Your task to perform on an android device: turn off notifications settings in the gmail app Image 0: 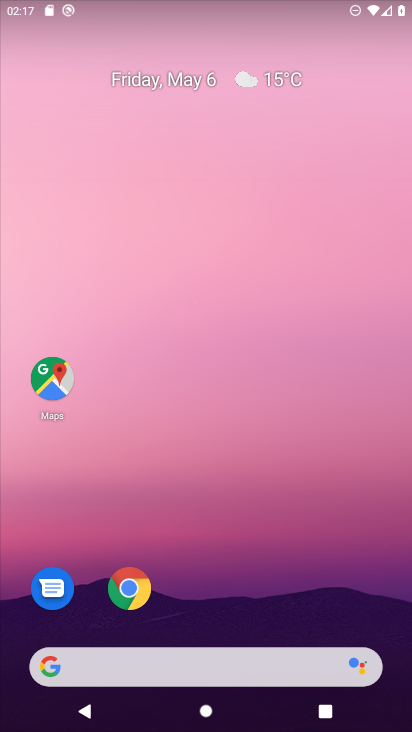
Step 0: drag from (208, 631) to (369, 24)
Your task to perform on an android device: turn off notifications settings in the gmail app Image 1: 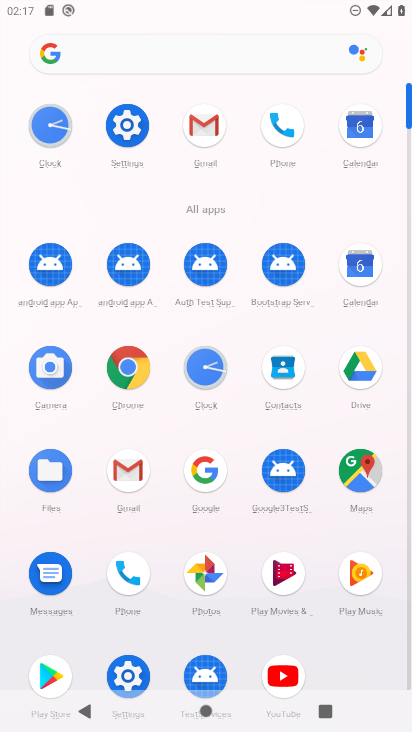
Step 1: click (131, 485)
Your task to perform on an android device: turn off notifications settings in the gmail app Image 2: 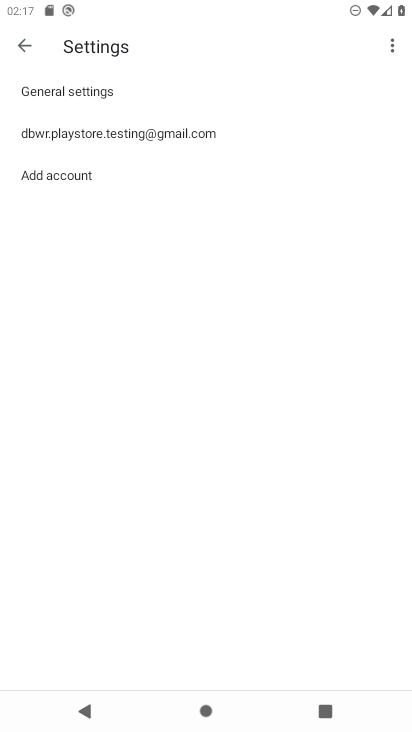
Step 2: click (17, 52)
Your task to perform on an android device: turn off notifications settings in the gmail app Image 3: 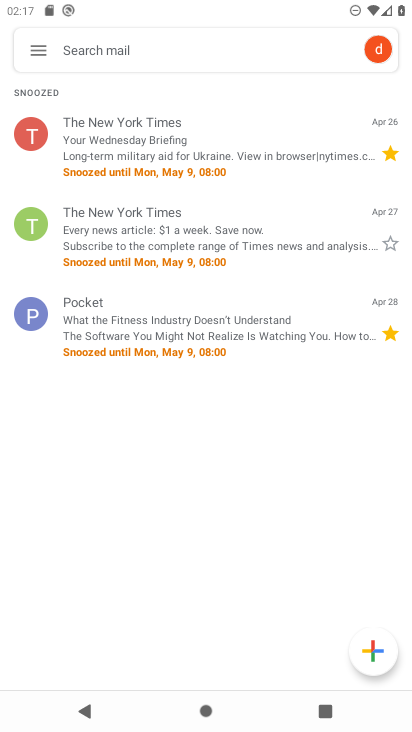
Step 3: click (37, 52)
Your task to perform on an android device: turn off notifications settings in the gmail app Image 4: 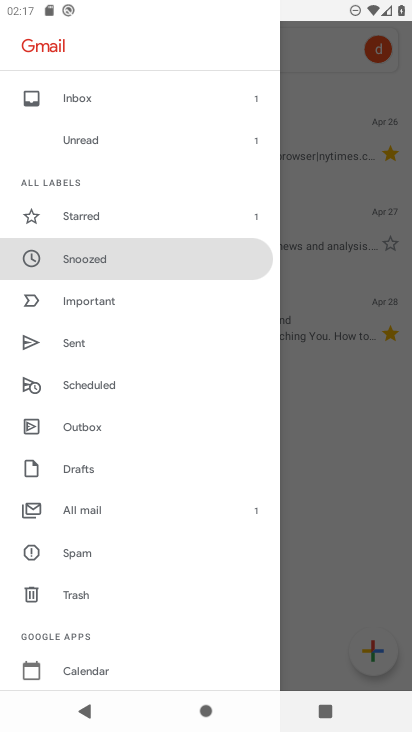
Step 4: drag from (123, 582) to (42, 270)
Your task to perform on an android device: turn off notifications settings in the gmail app Image 5: 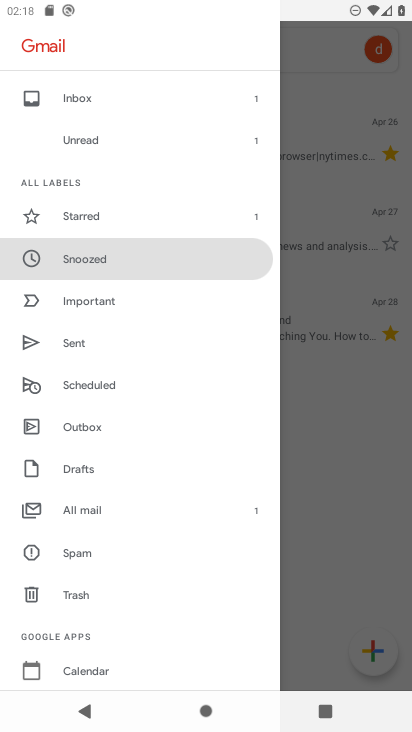
Step 5: drag from (124, 514) to (51, 8)
Your task to perform on an android device: turn off notifications settings in the gmail app Image 6: 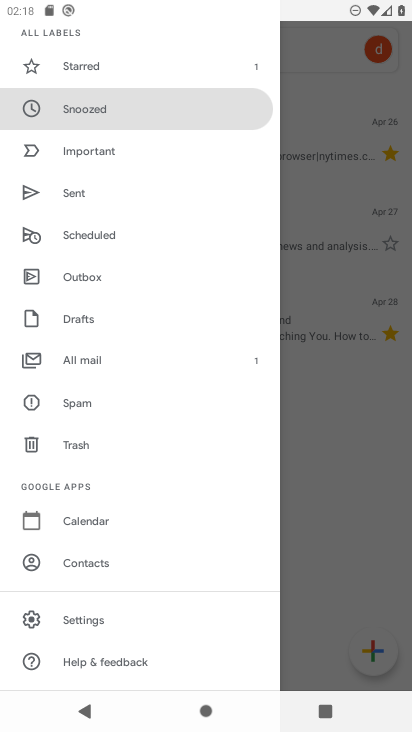
Step 6: click (72, 623)
Your task to perform on an android device: turn off notifications settings in the gmail app Image 7: 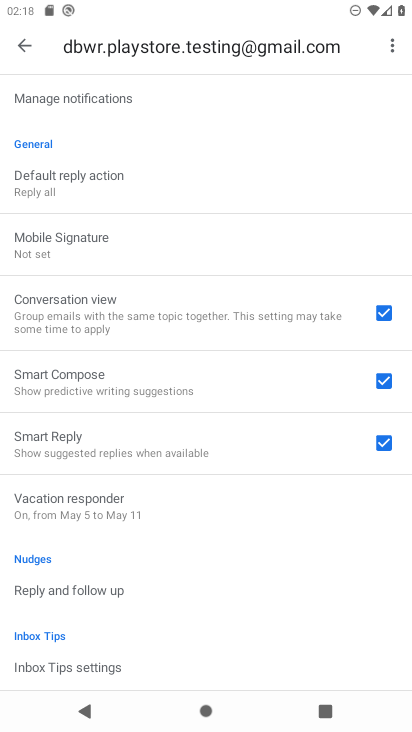
Step 7: click (21, 39)
Your task to perform on an android device: turn off notifications settings in the gmail app Image 8: 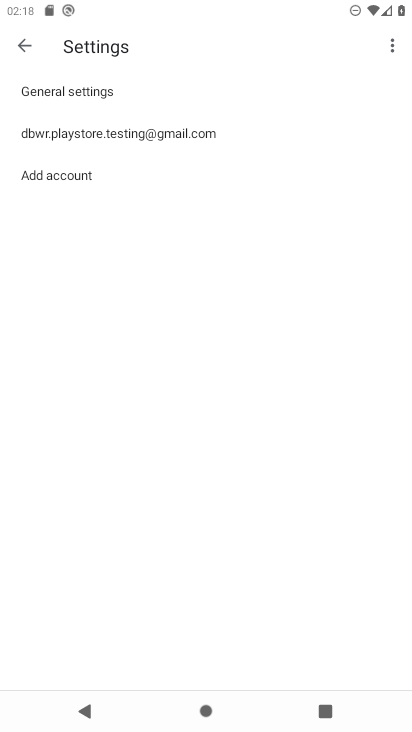
Step 8: click (68, 89)
Your task to perform on an android device: turn off notifications settings in the gmail app Image 9: 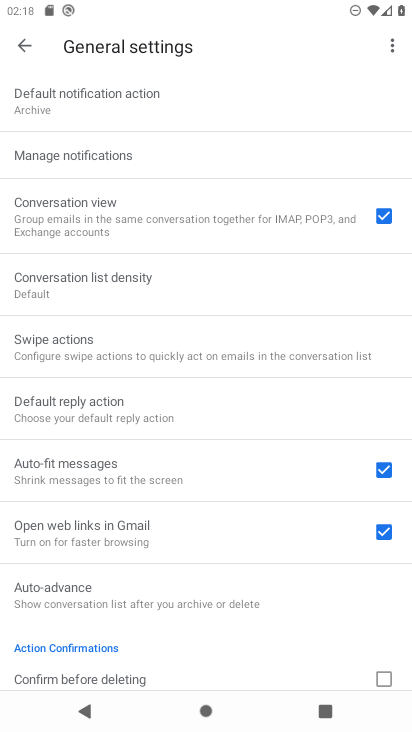
Step 9: click (139, 162)
Your task to perform on an android device: turn off notifications settings in the gmail app Image 10: 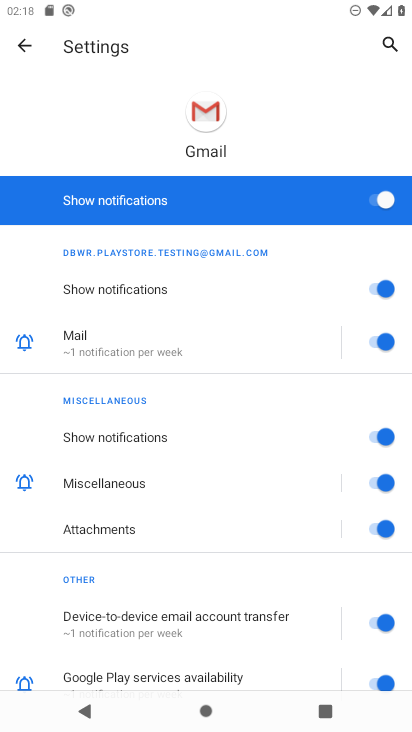
Step 10: click (378, 199)
Your task to perform on an android device: turn off notifications settings in the gmail app Image 11: 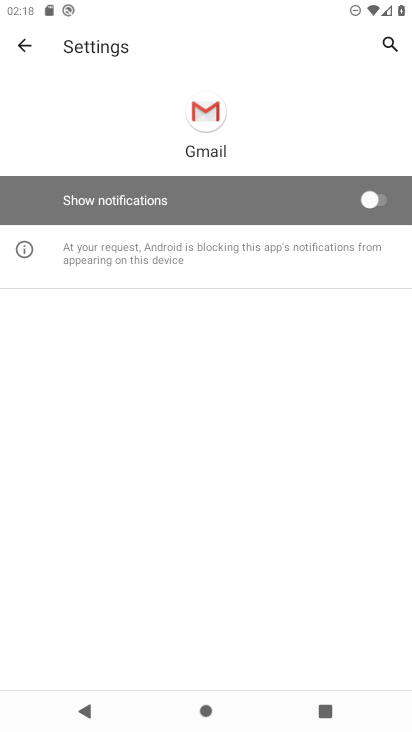
Step 11: task complete